Your task to perform on an android device: change text size in settings app Image 0: 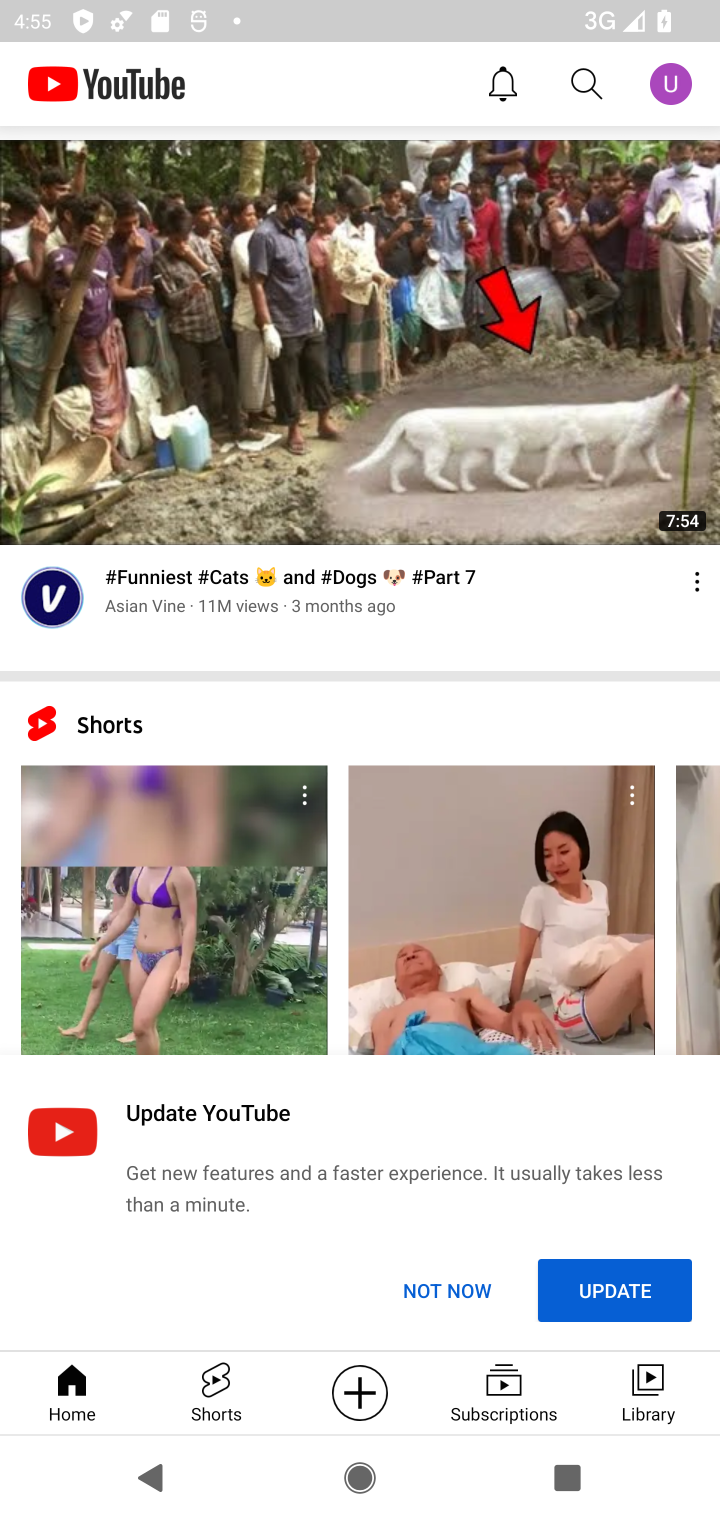
Step 0: press home button
Your task to perform on an android device: change text size in settings app Image 1: 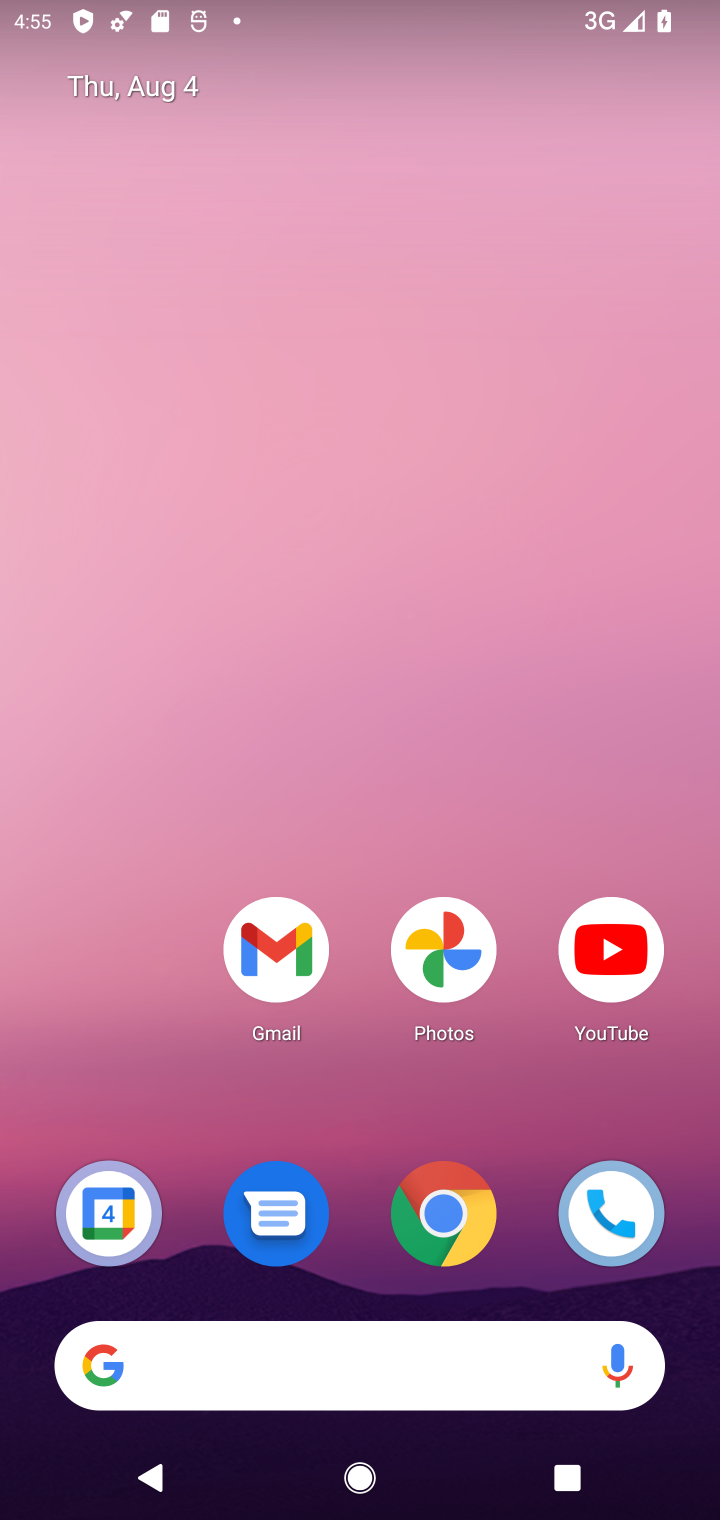
Step 1: drag from (157, 1101) to (188, 374)
Your task to perform on an android device: change text size in settings app Image 2: 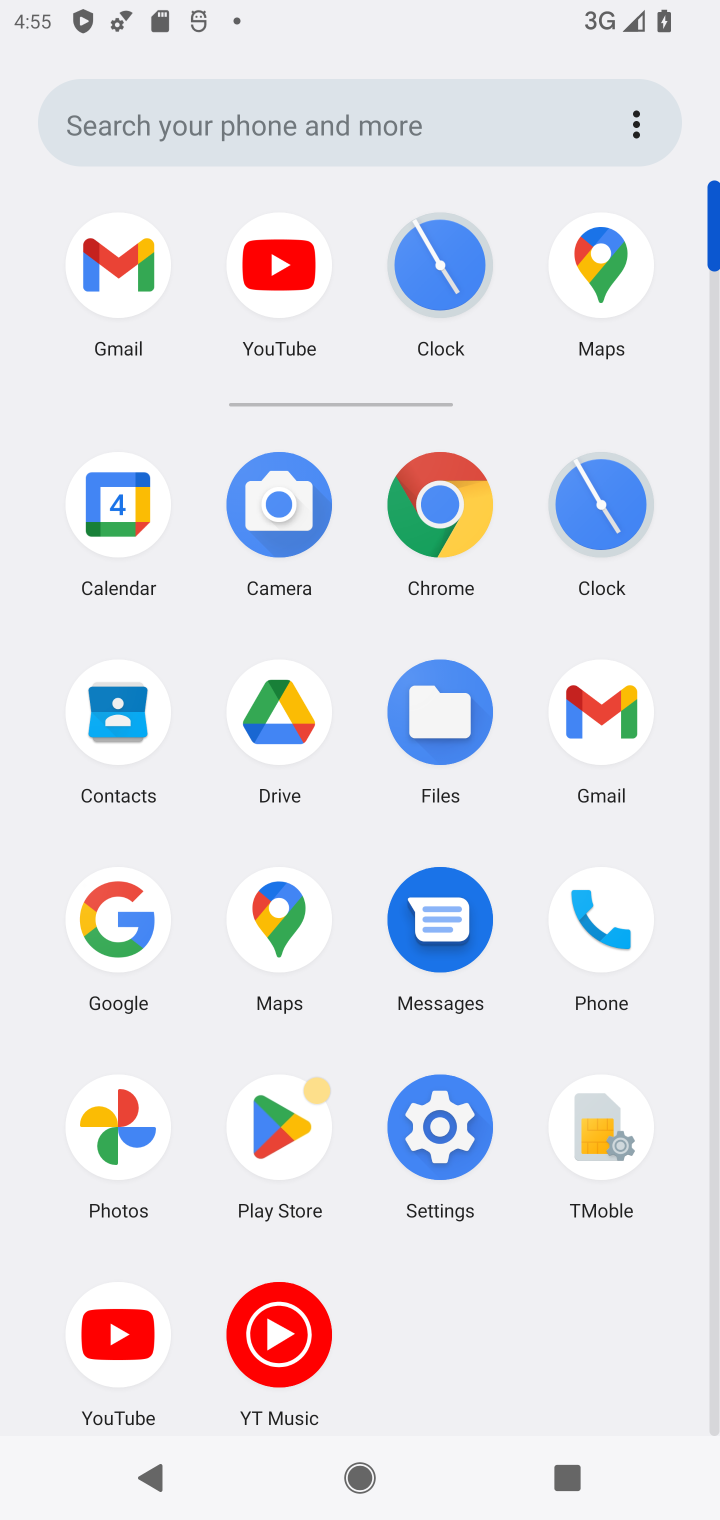
Step 2: click (462, 1154)
Your task to perform on an android device: change text size in settings app Image 3: 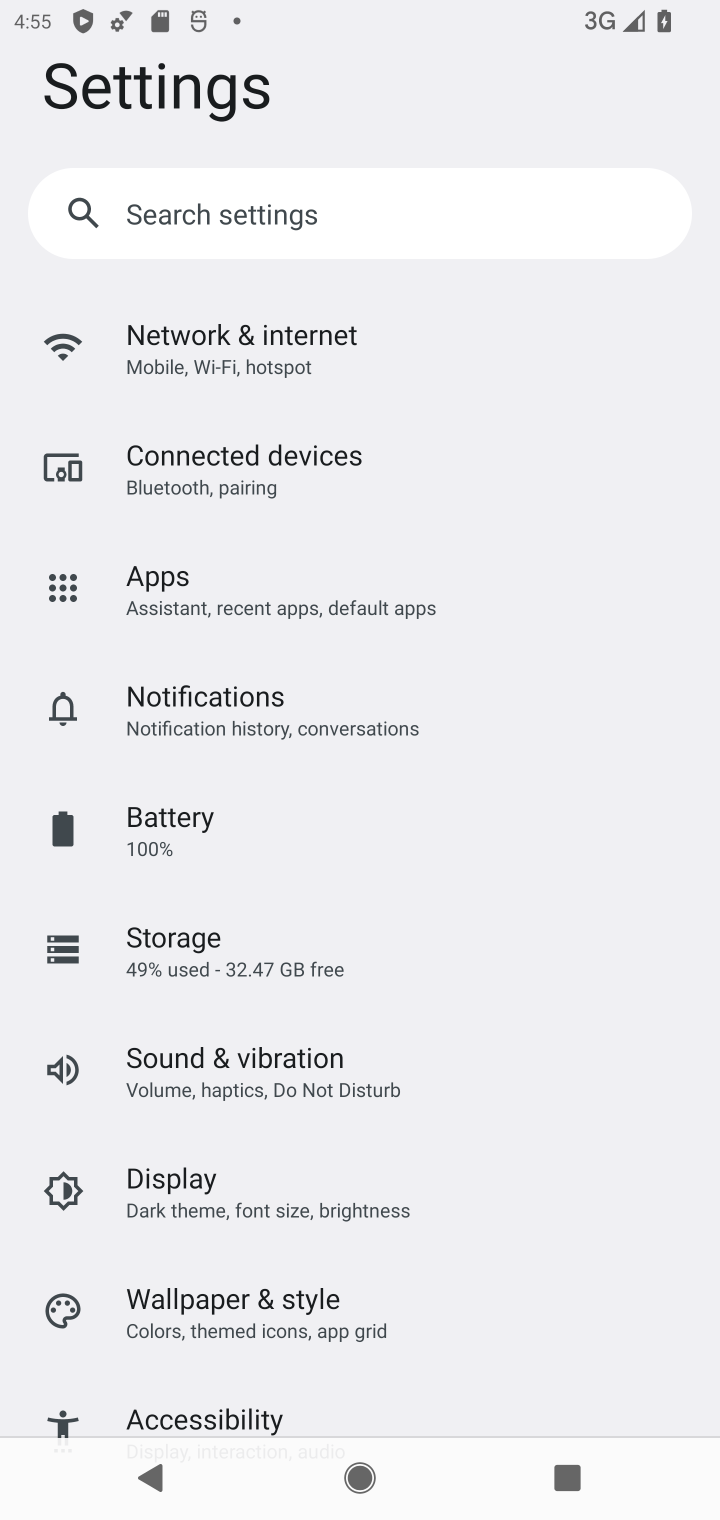
Step 3: drag from (572, 1189) to (570, 1001)
Your task to perform on an android device: change text size in settings app Image 4: 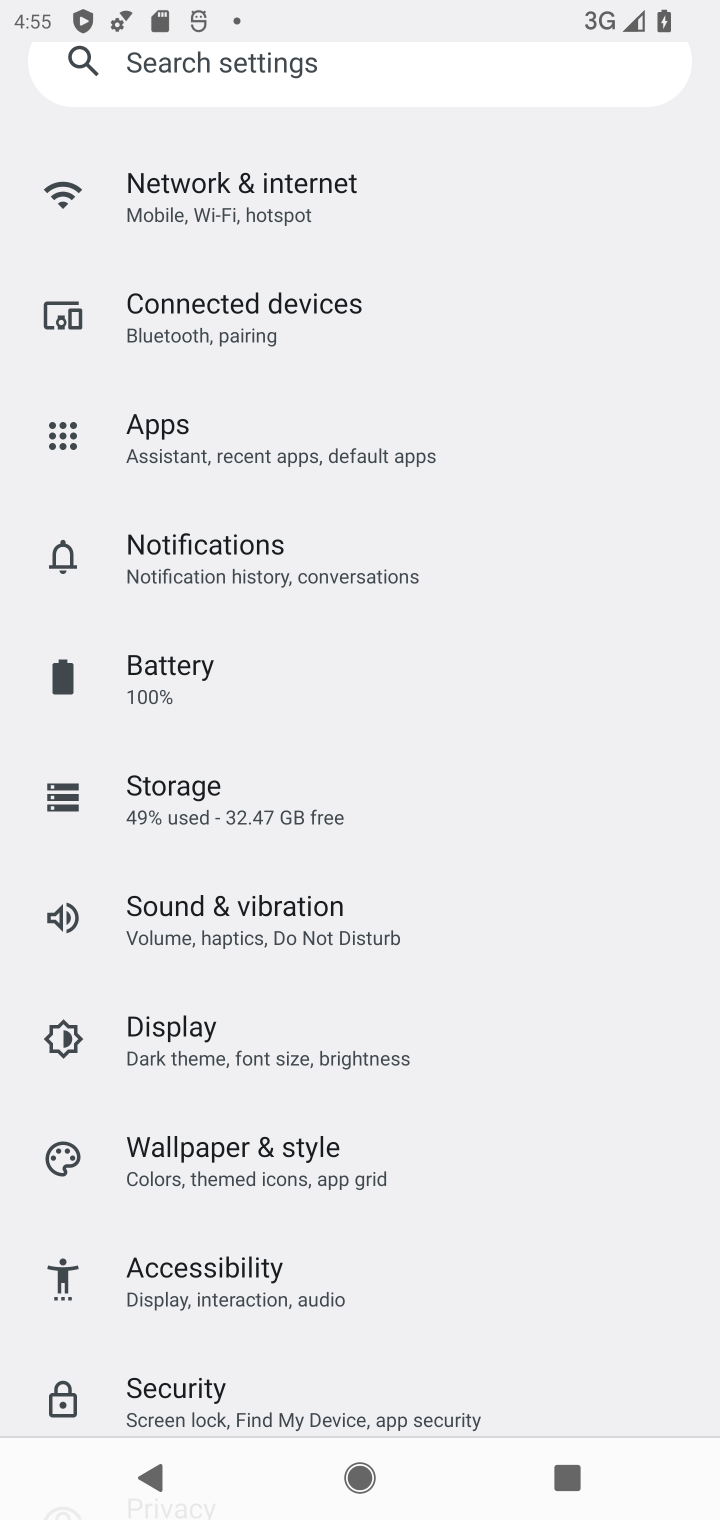
Step 4: drag from (610, 1122) to (612, 977)
Your task to perform on an android device: change text size in settings app Image 5: 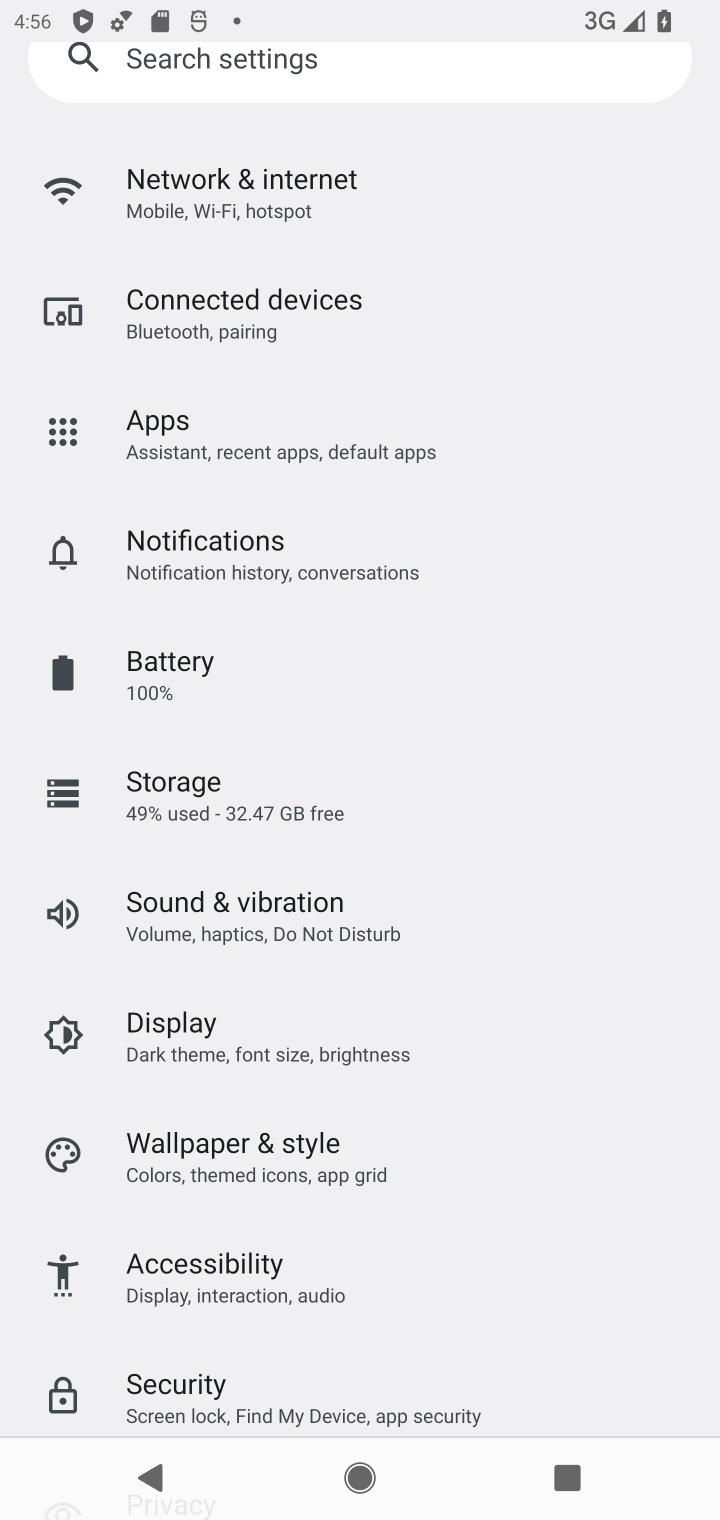
Step 5: drag from (626, 1263) to (628, 930)
Your task to perform on an android device: change text size in settings app Image 6: 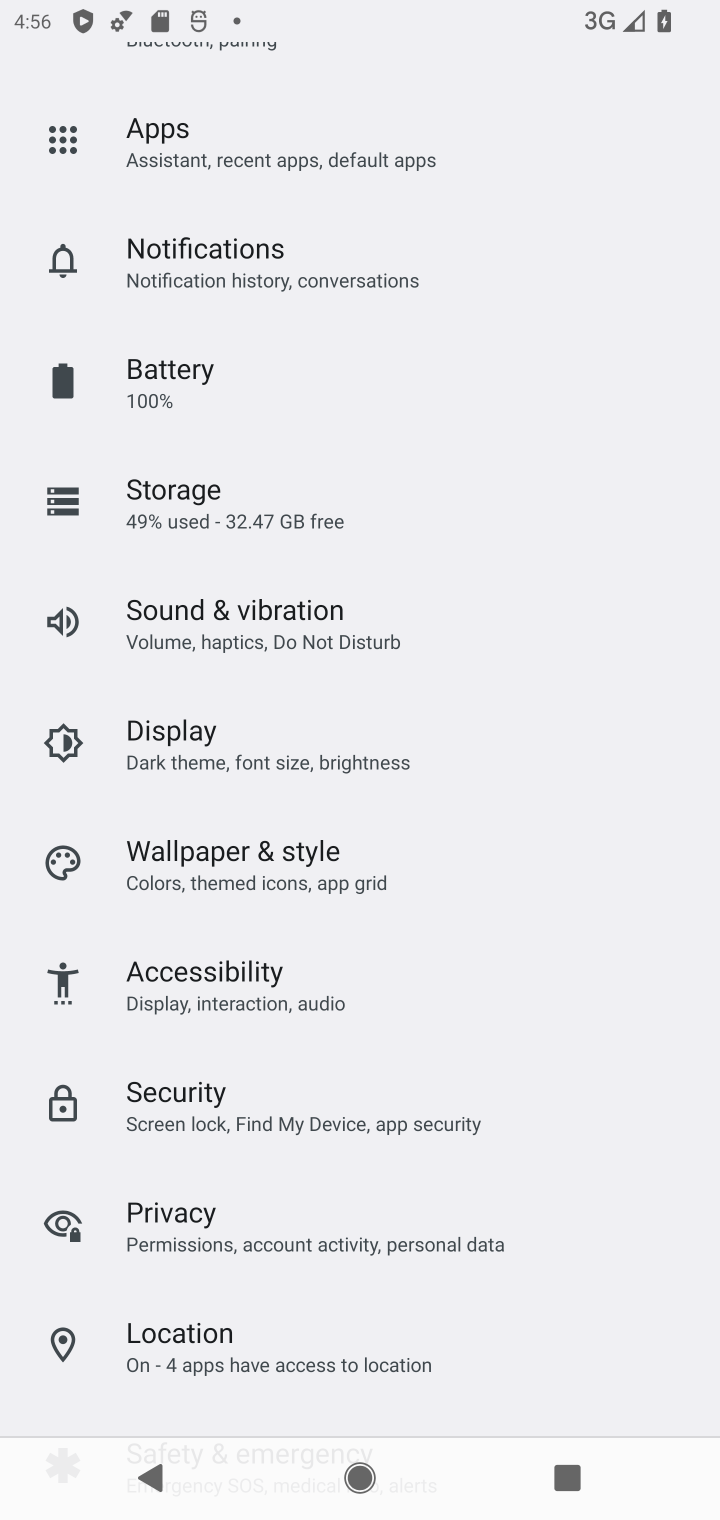
Step 6: drag from (633, 1341) to (629, 933)
Your task to perform on an android device: change text size in settings app Image 7: 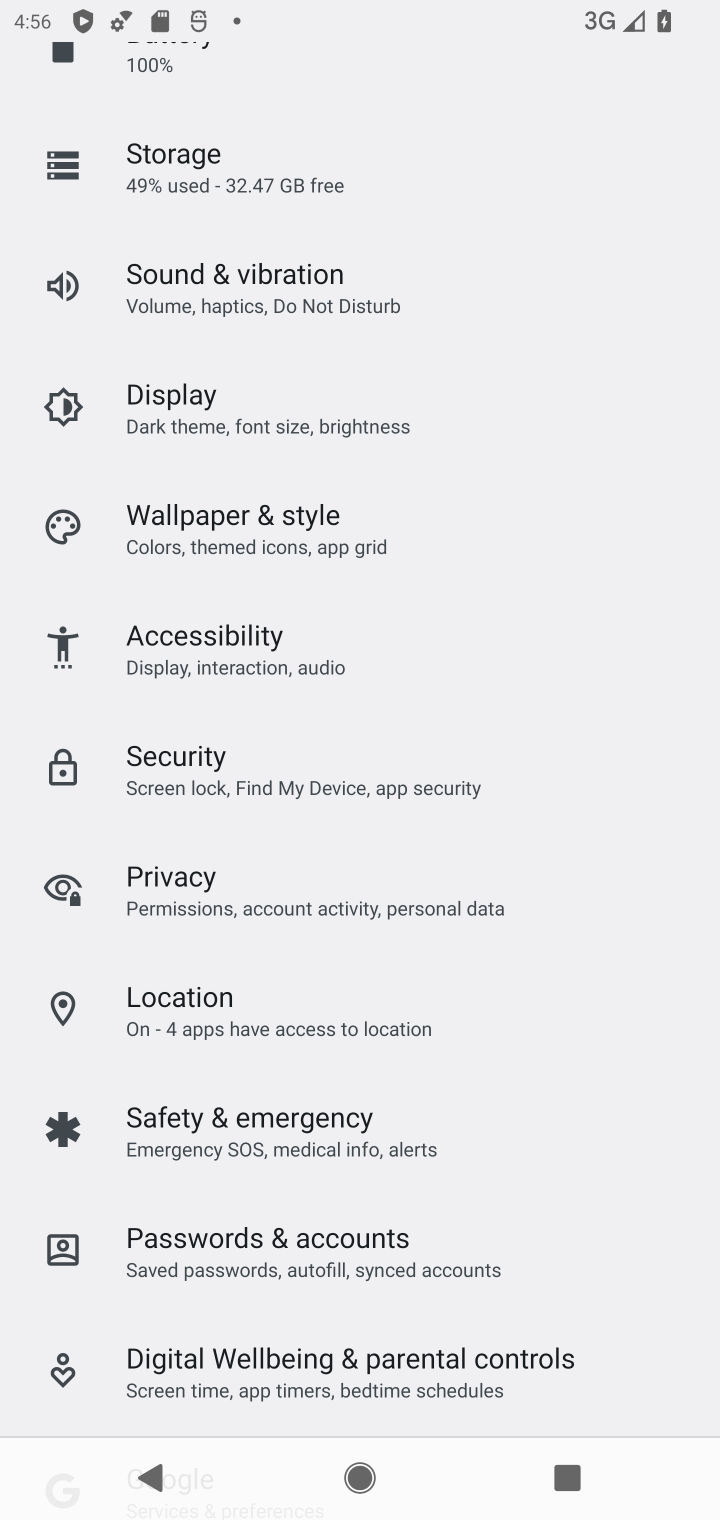
Step 7: drag from (645, 1345) to (633, 911)
Your task to perform on an android device: change text size in settings app Image 8: 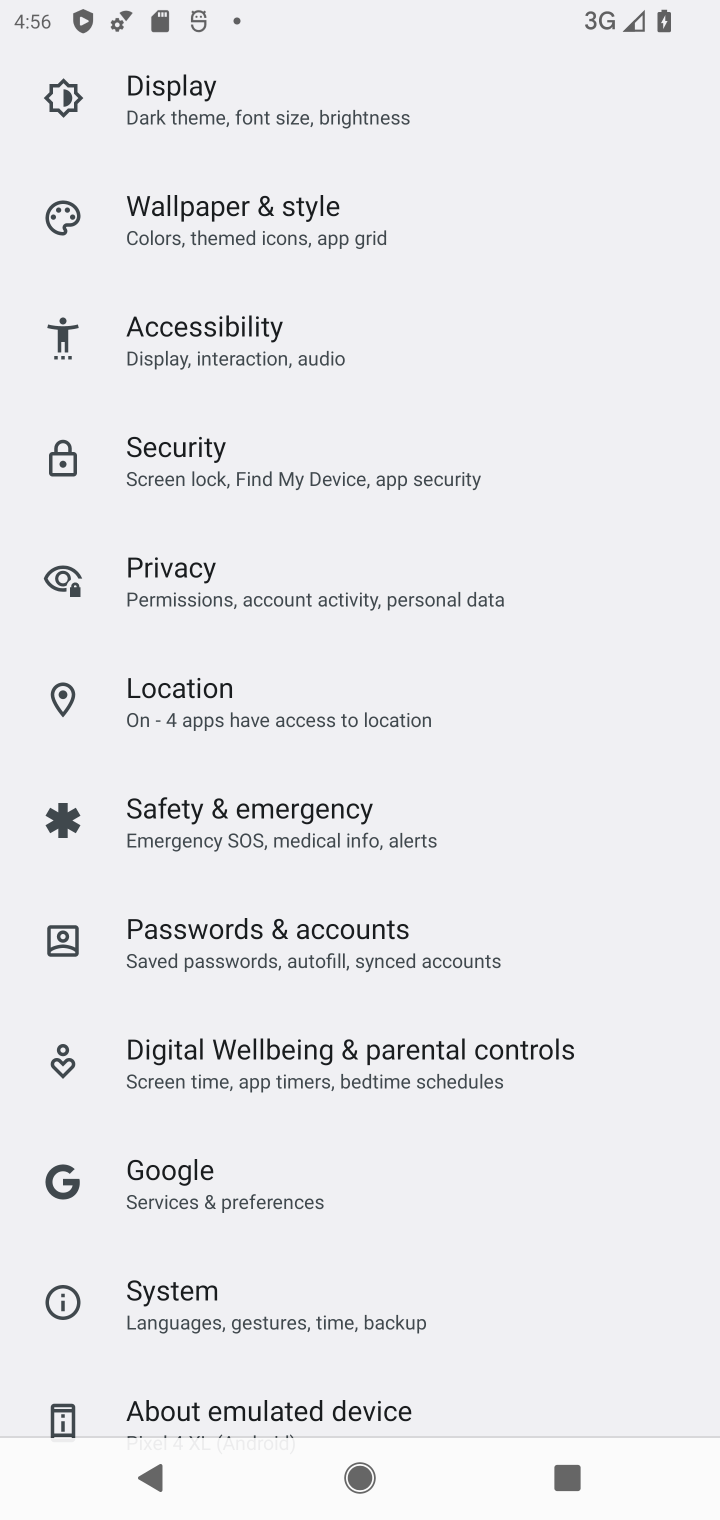
Step 8: drag from (613, 738) to (625, 1007)
Your task to perform on an android device: change text size in settings app Image 9: 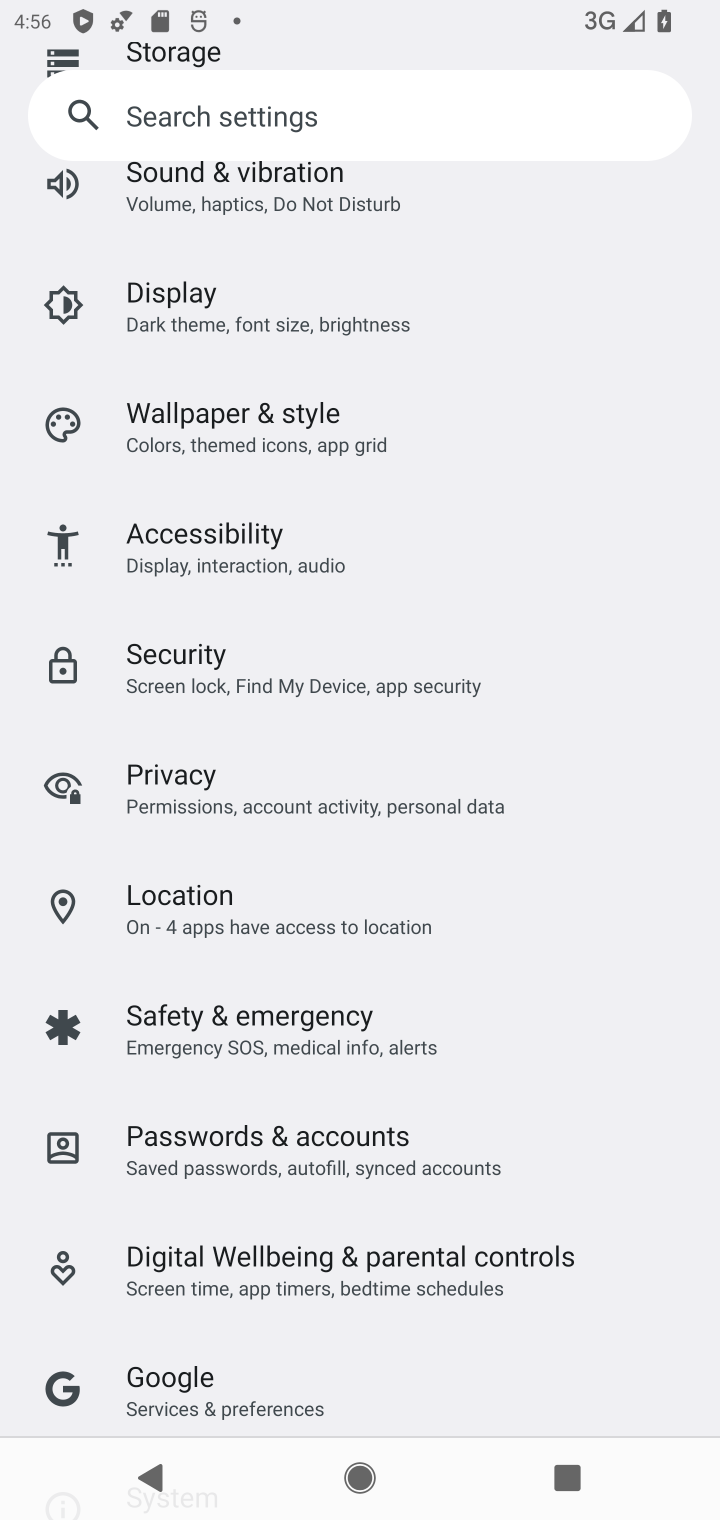
Step 9: drag from (633, 706) to (618, 1011)
Your task to perform on an android device: change text size in settings app Image 10: 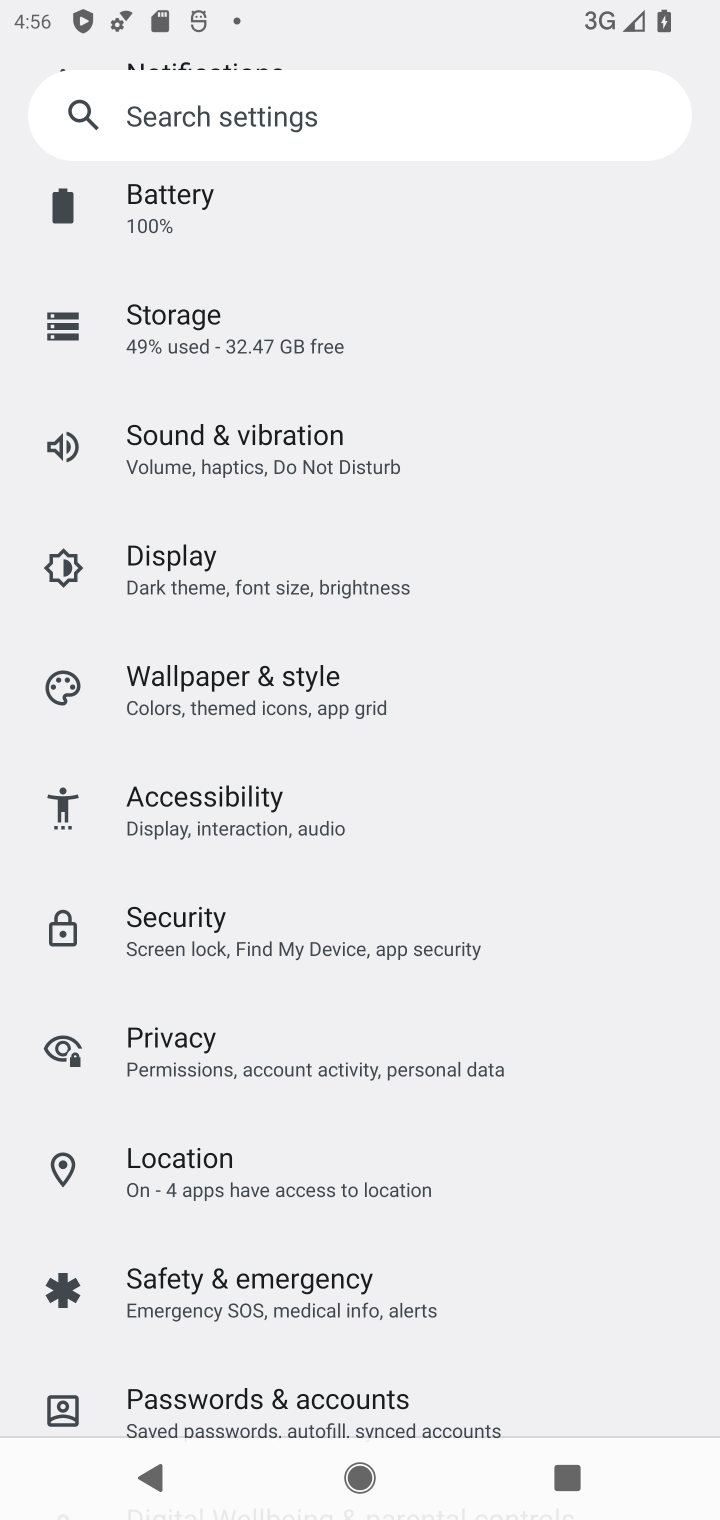
Step 10: drag from (581, 661) to (579, 999)
Your task to perform on an android device: change text size in settings app Image 11: 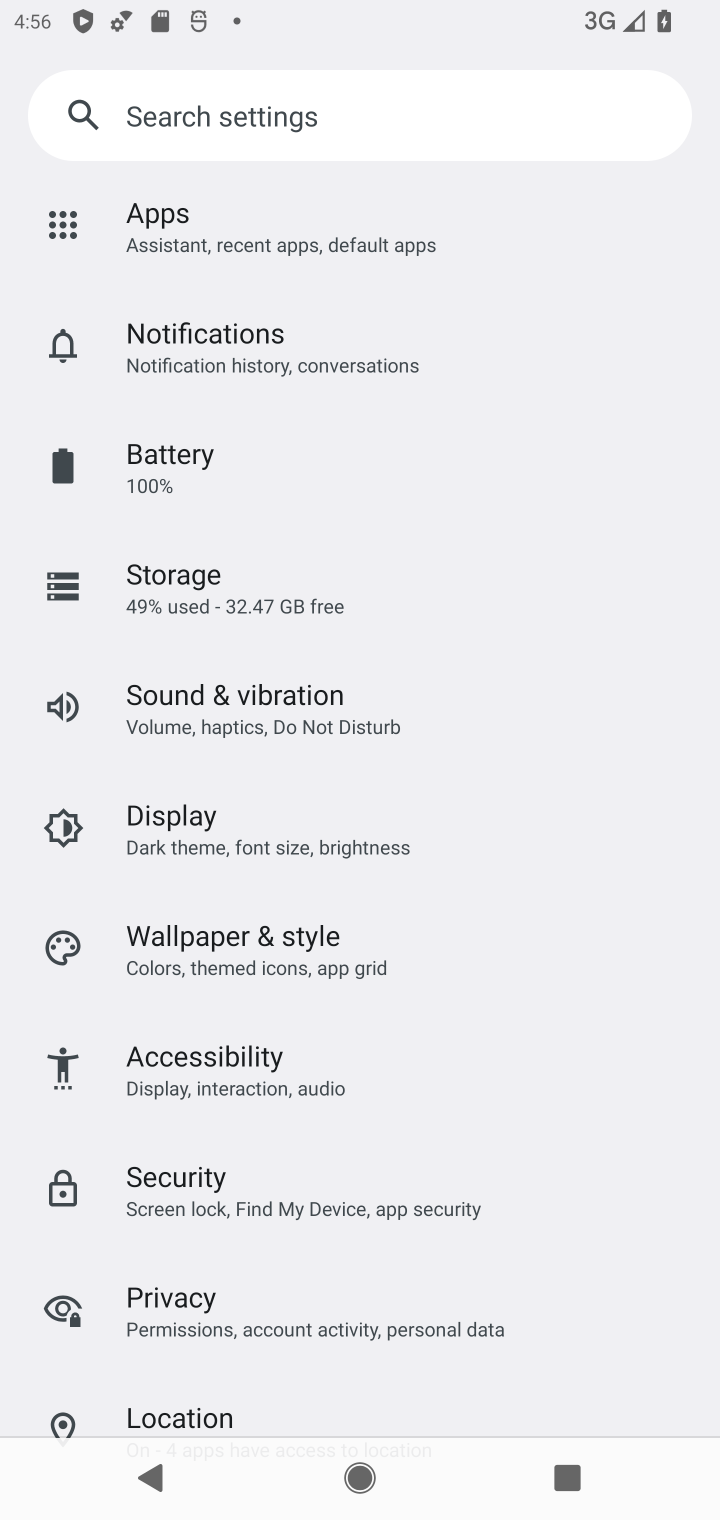
Step 11: drag from (574, 600) to (574, 967)
Your task to perform on an android device: change text size in settings app Image 12: 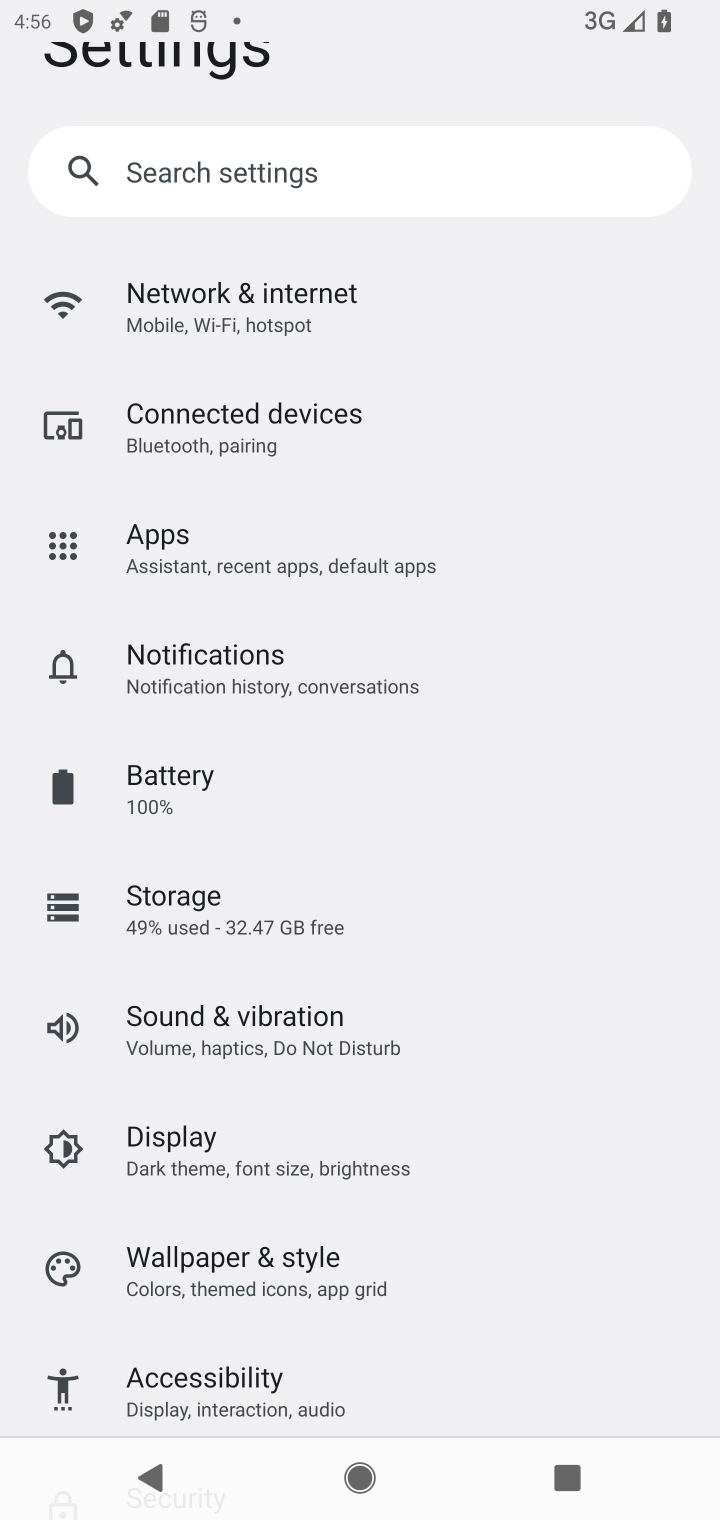
Step 12: click (448, 1147)
Your task to perform on an android device: change text size in settings app Image 13: 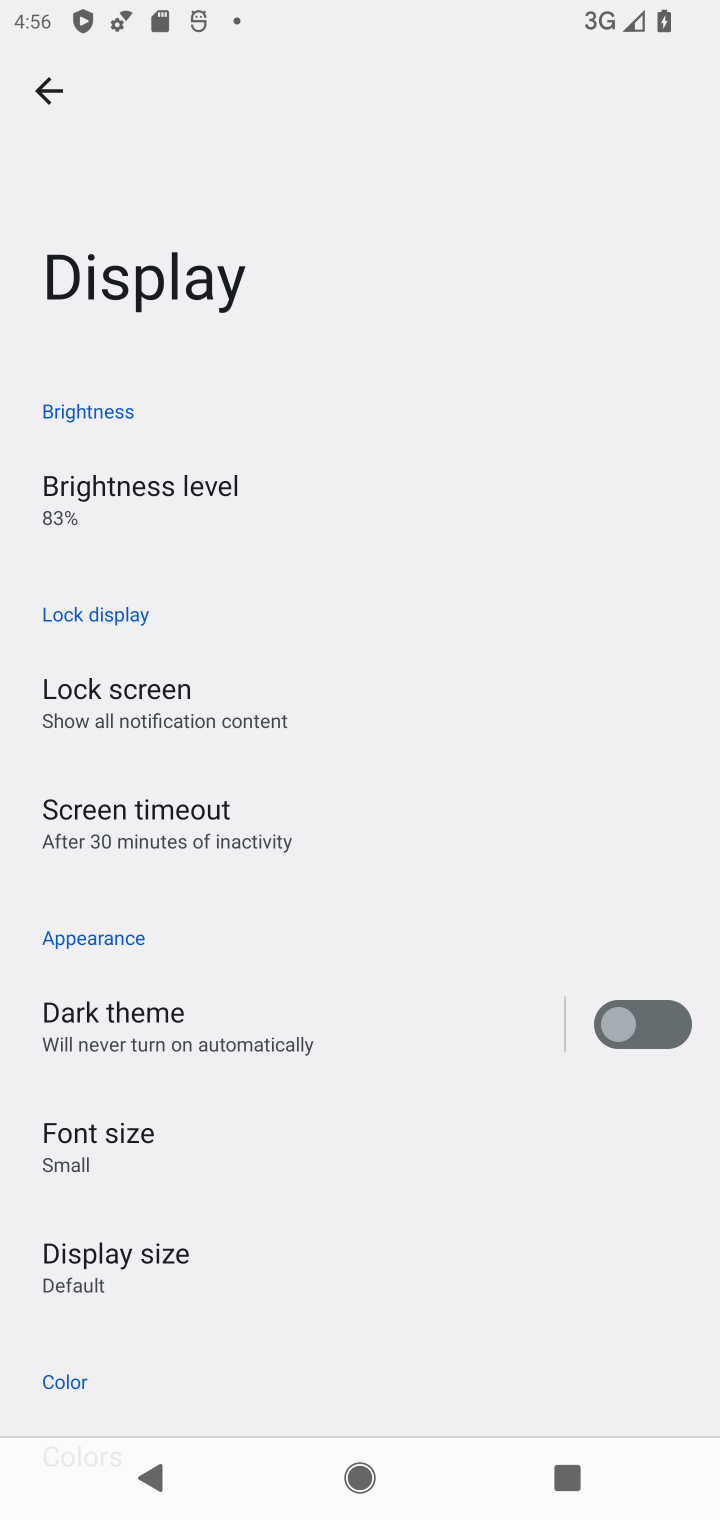
Step 13: click (146, 1132)
Your task to perform on an android device: change text size in settings app Image 14: 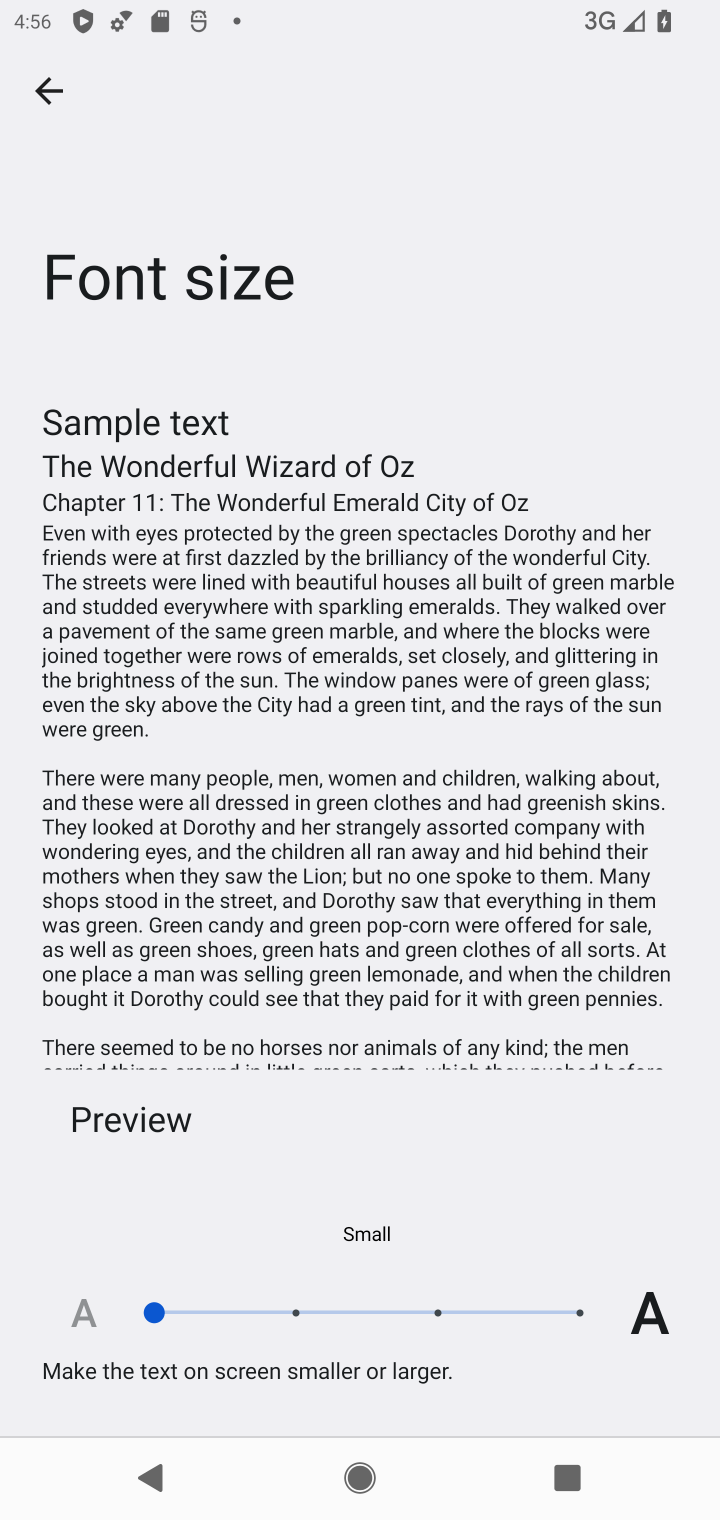
Step 14: click (569, 1311)
Your task to perform on an android device: change text size in settings app Image 15: 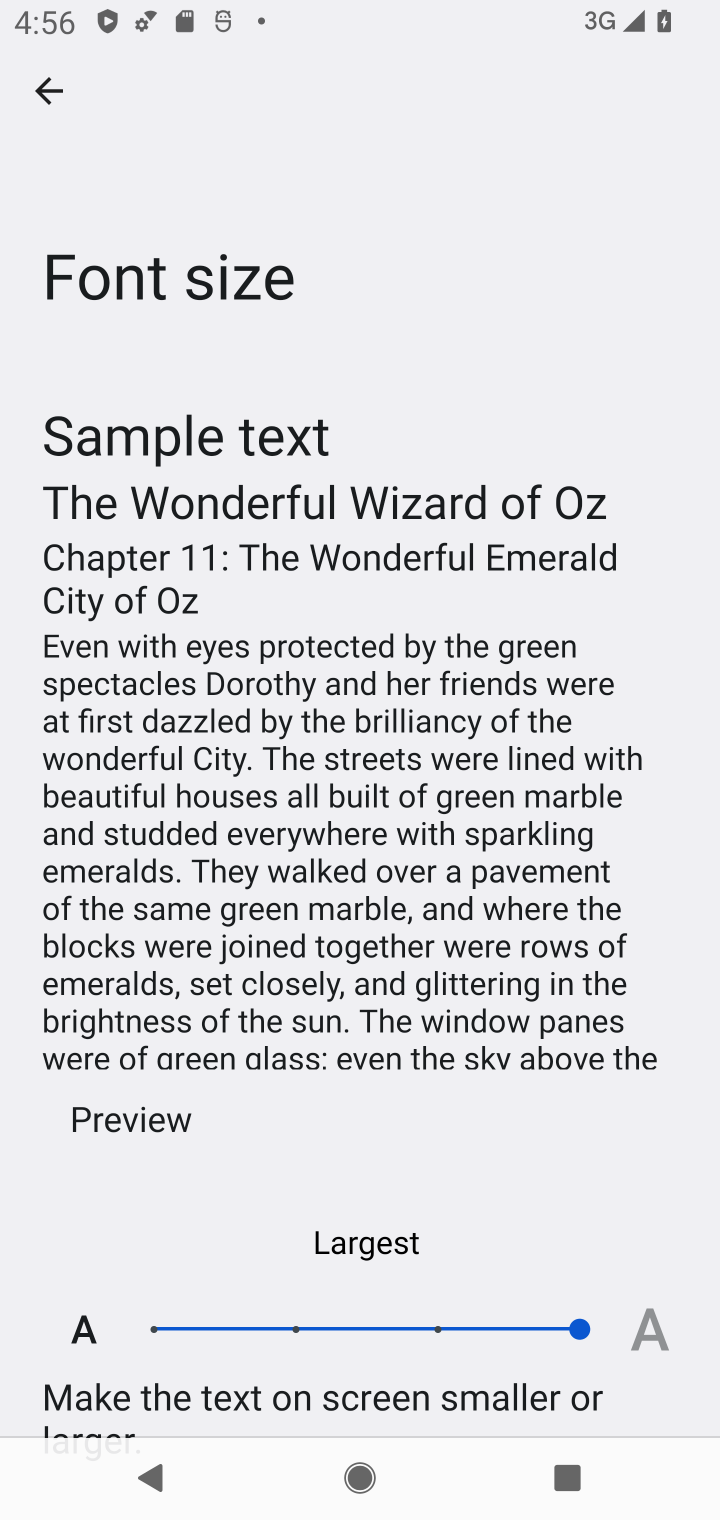
Step 15: task complete